Your task to perform on an android device: Go to Google maps Image 0: 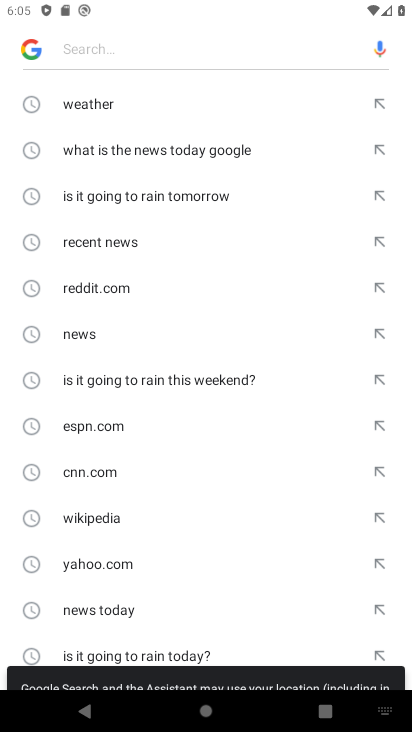
Step 0: press home button
Your task to perform on an android device: Go to Google maps Image 1: 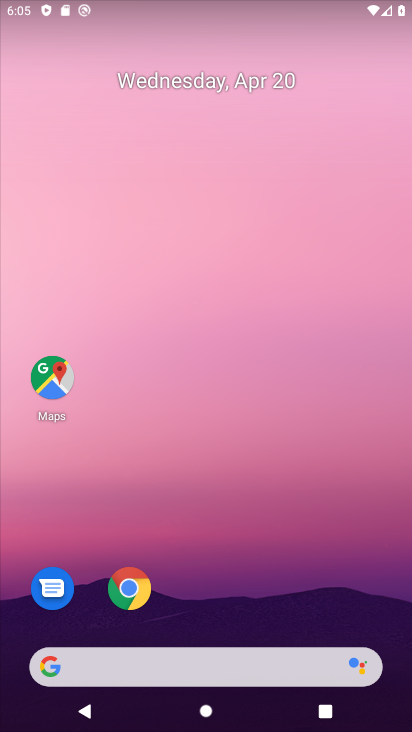
Step 1: drag from (203, 578) to (217, 97)
Your task to perform on an android device: Go to Google maps Image 2: 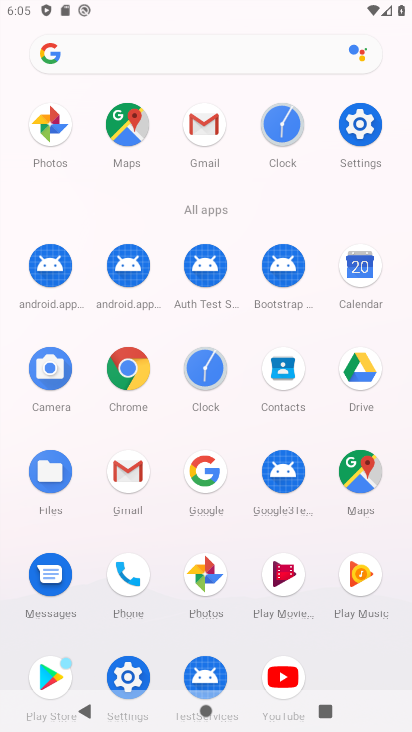
Step 2: click (131, 124)
Your task to perform on an android device: Go to Google maps Image 3: 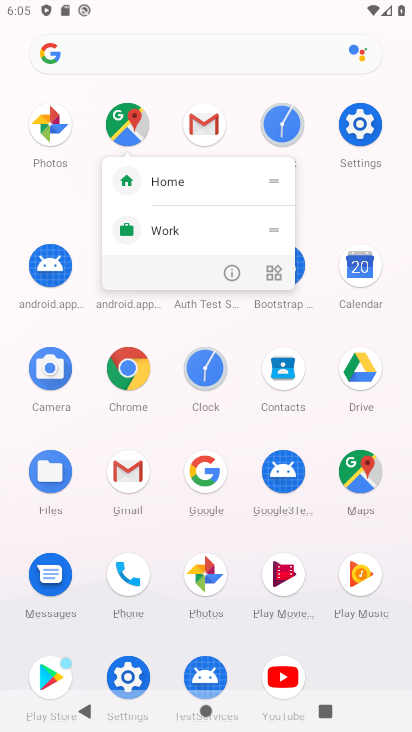
Step 3: click (369, 469)
Your task to perform on an android device: Go to Google maps Image 4: 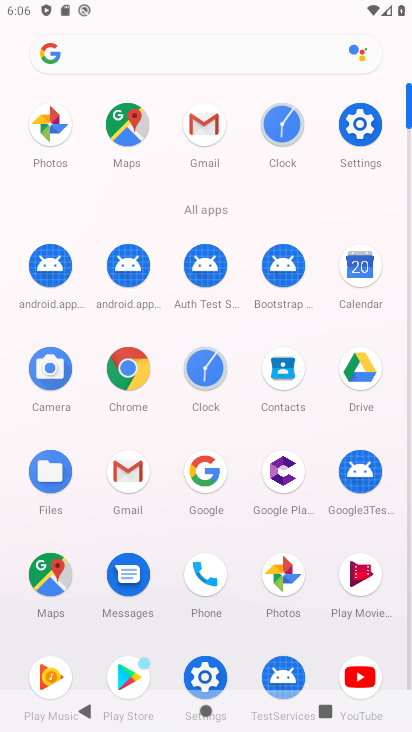
Step 4: click (51, 580)
Your task to perform on an android device: Go to Google maps Image 5: 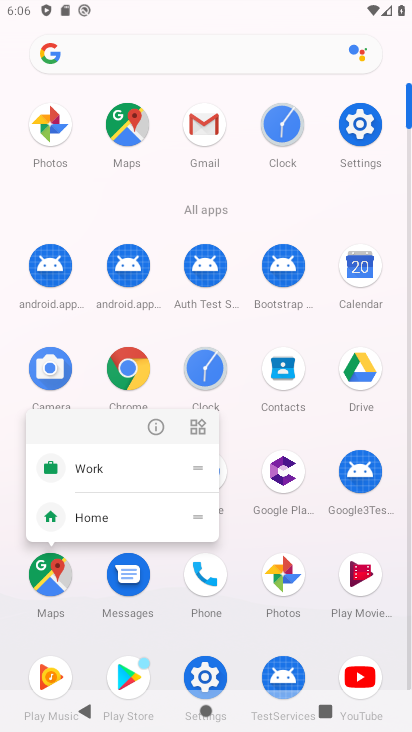
Step 5: click (51, 580)
Your task to perform on an android device: Go to Google maps Image 6: 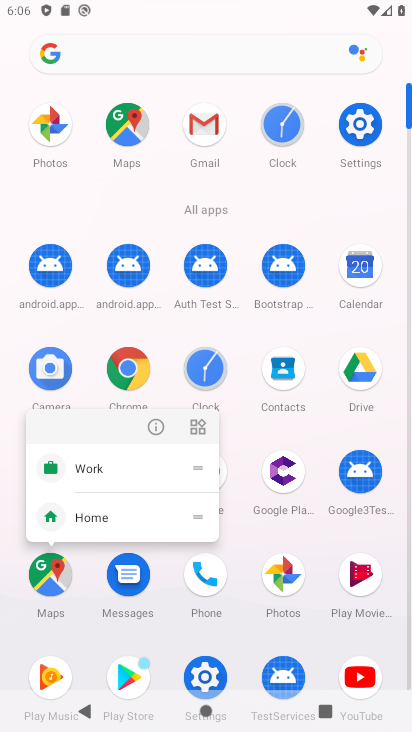
Step 6: click (49, 579)
Your task to perform on an android device: Go to Google maps Image 7: 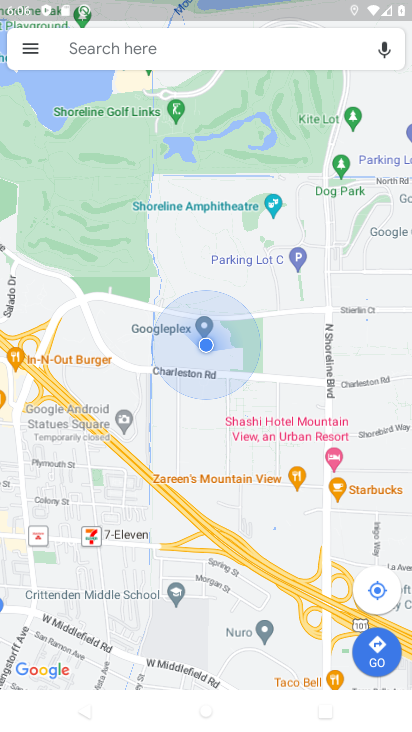
Step 7: task complete